Your task to perform on an android device: turn notification dots on Image 0: 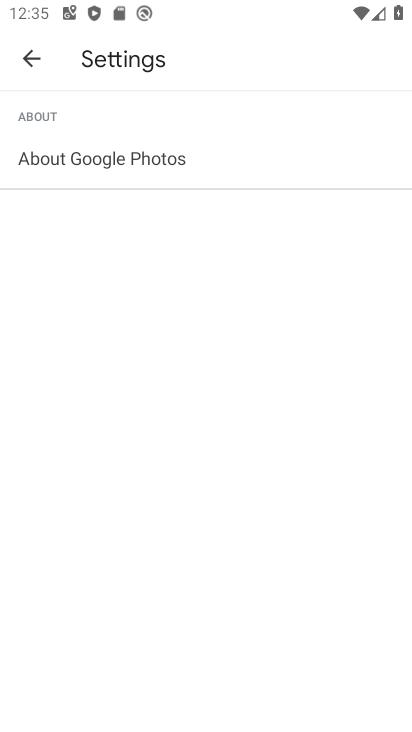
Step 0: click (32, 49)
Your task to perform on an android device: turn notification dots on Image 1: 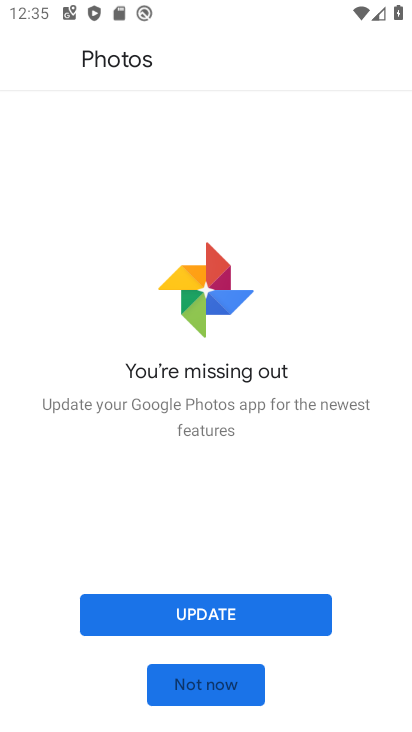
Step 1: click (210, 699)
Your task to perform on an android device: turn notification dots on Image 2: 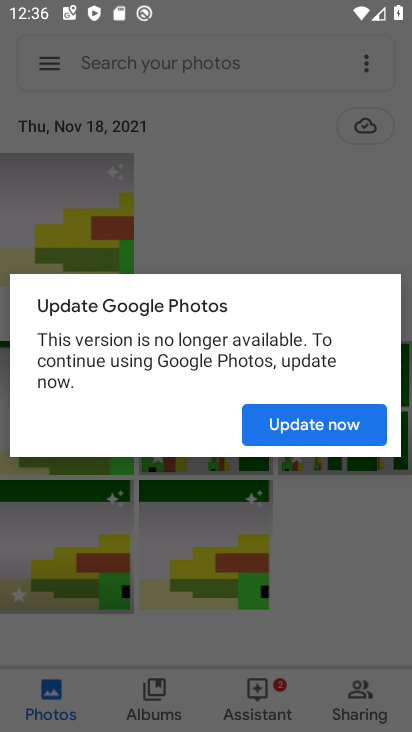
Step 2: press back button
Your task to perform on an android device: turn notification dots on Image 3: 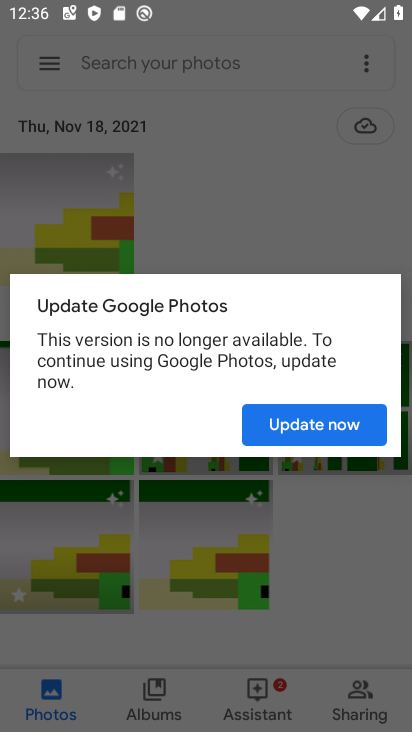
Step 3: press home button
Your task to perform on an android device: turn notification dots on Image 4: 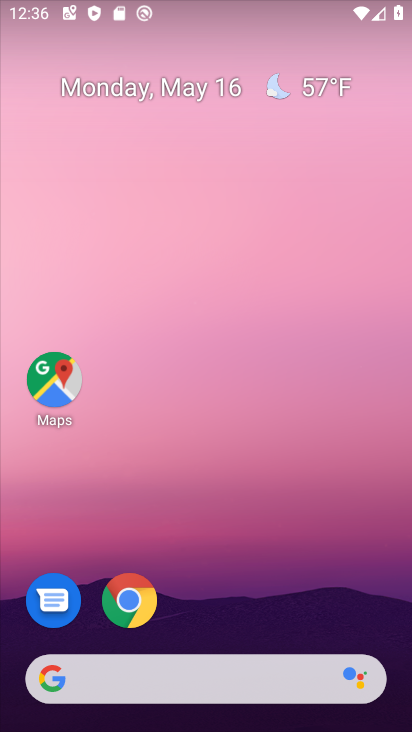
Step 4: drag from (149, 587) to (277, 20)
Your task to perform on an android device: turn notification dots on Image 5: 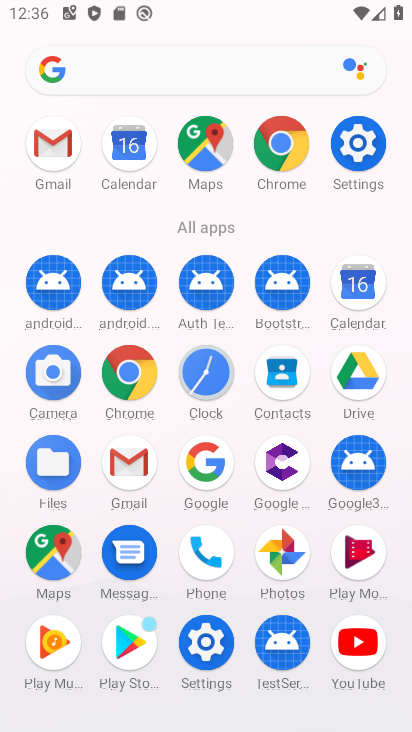
Step 5: click (354, 144)
Your task to perform on an android device: turn notification dots on Image 6: 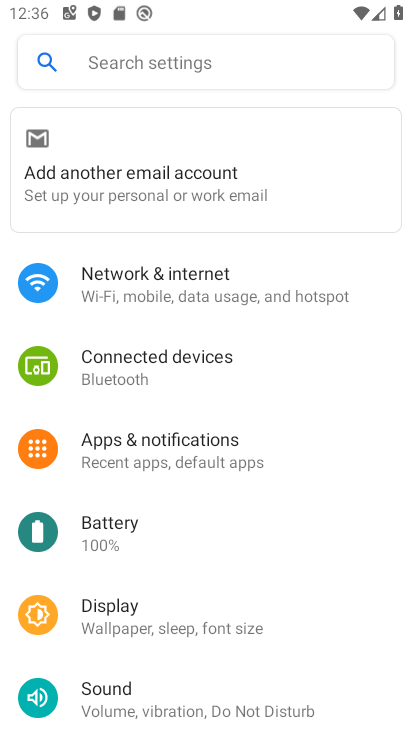
Step 6: click (186, 467)
Your task to perform on an android device: turn notification dots on Image 7: 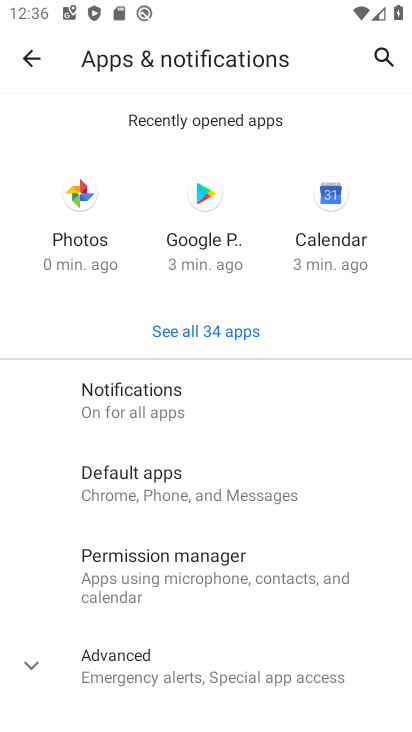
Step 7: click (161, 404)
Your task to perform on an android device: turn notification dots on Image 8: 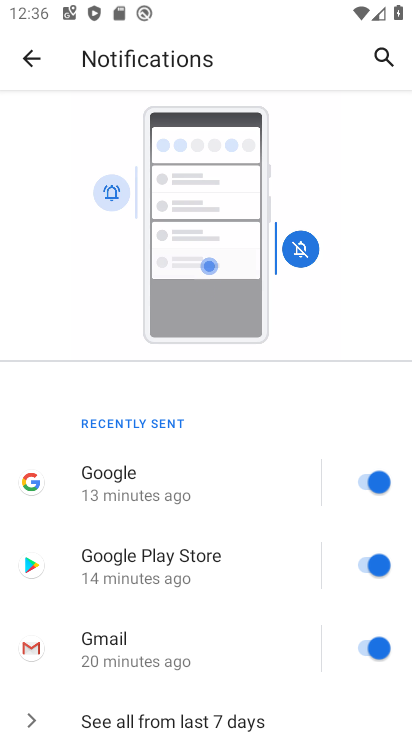
Step 8: drag from (203, 633) to (289, 86)
Your task to perform on an android device: turn notification dots on Image 9: 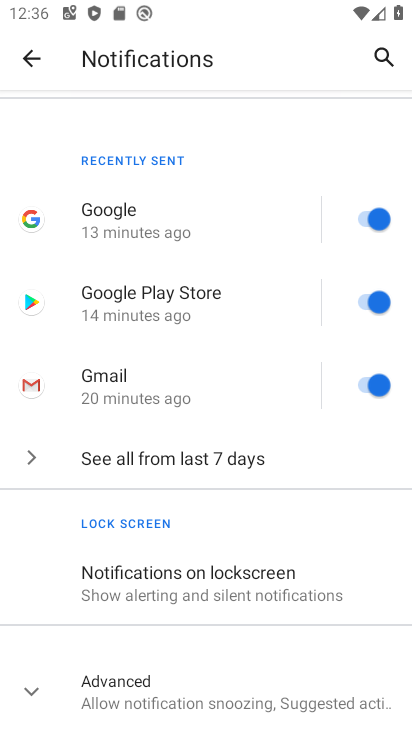
Step 9: click (171, 687)
Your task to perform on an android device: turn notification dots on Image 10: 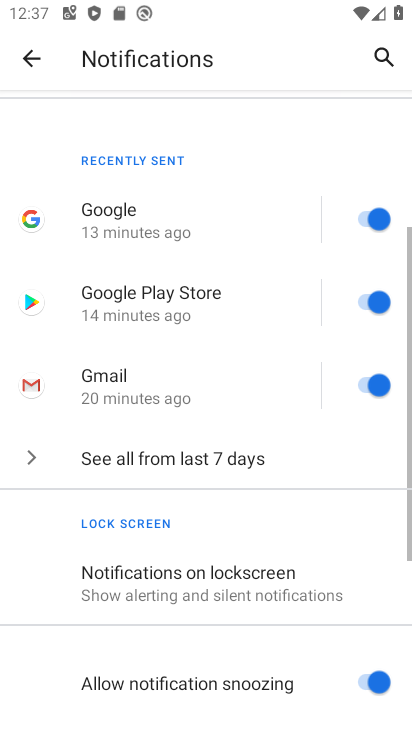
Step 10: task complete